Your task to perform on an android device: open app "Flipkart Online Shopping App" Image 0: 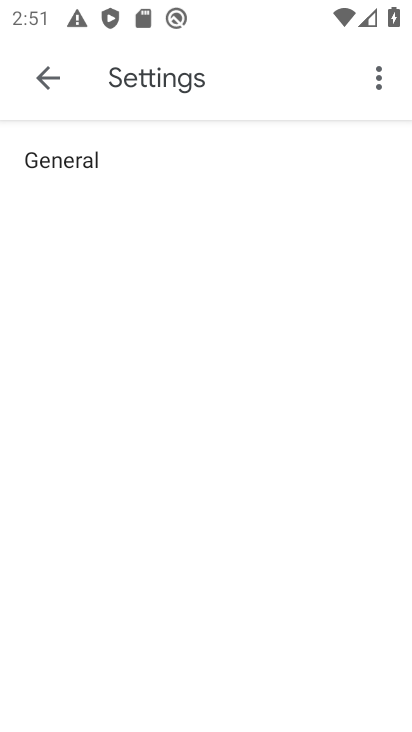
Step 0: press home button
Your task to perform on an android device: open app "Flipkart Online Shopping App" Image 1: 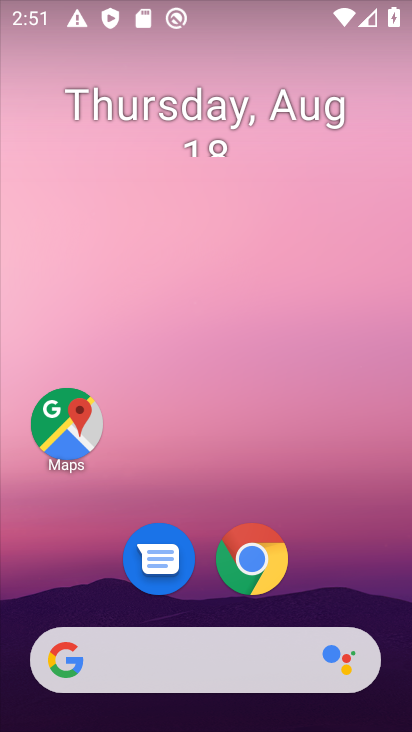
Step 1: drag from (242, 615) to (401, 214)
Your task to perform on an android device: open app "Flipkart Online Shopping App" Image 2: 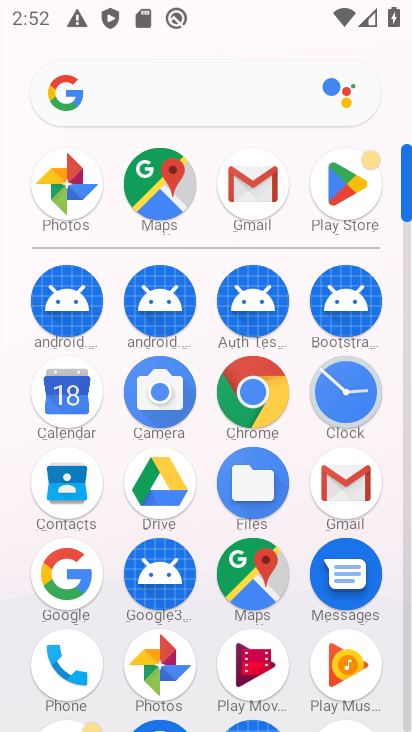
Step 2: click (340, 194)
Your task to perform on an android device: open app "Flipkart Online Shopping App" Image 3: 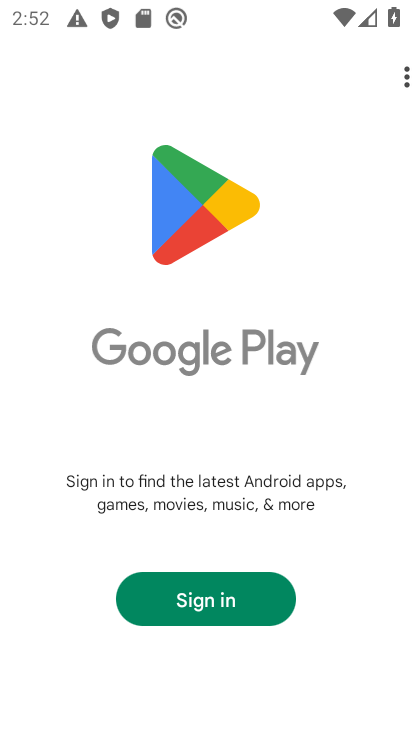
Step 3: click (200, 633)
Your task to perform on an android device: open app "Flipkart Online Shopping App" Image 4: 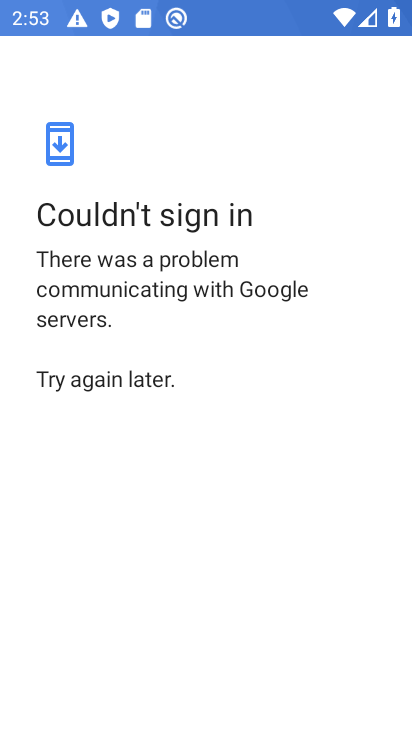
Step 4: task complete